Your task to perform on an android device: Search for Italian restaurants on Maps Image 0: 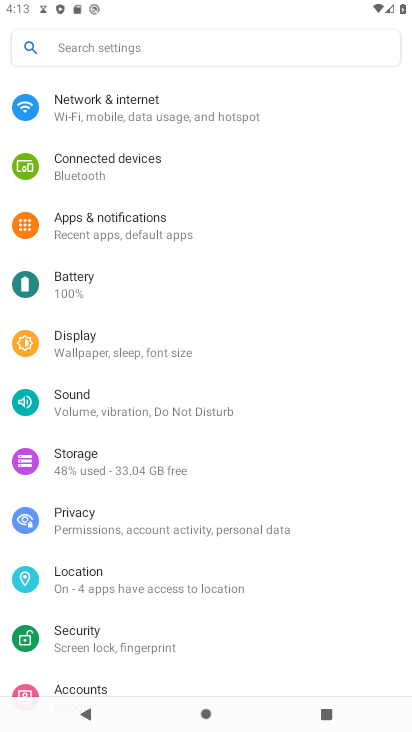
Step 0: drag from (204, 623) to (226, 460)
Your task to perform on an android device: Search for Italian restaurants on Maps Image 1: 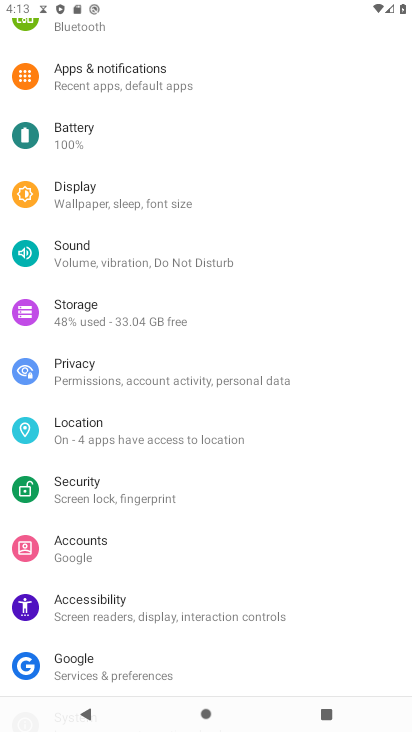
Step 1: press home button
Your task to perform on an android device: Search for Italian restaurants on Maps Image 2: 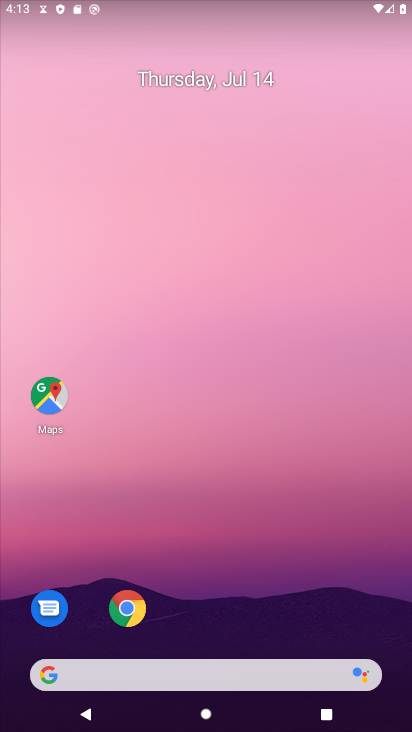
Step 2: drag from (143, 645) to (262, 77)
Your task to perform on an android device: Search for Italian restaurants on Maps Image 3: 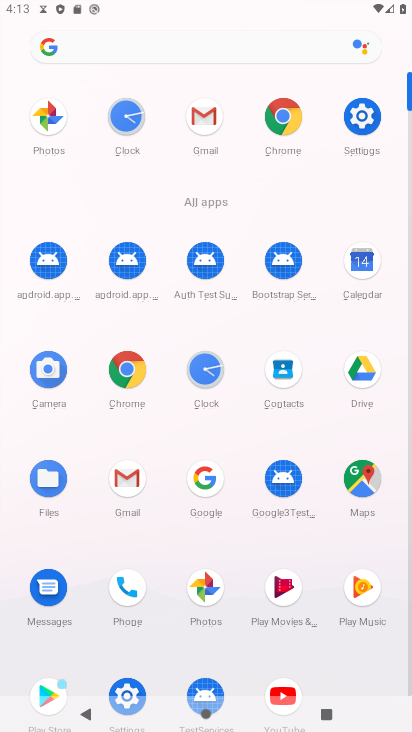
Step 3: click (346, 488)
Your task to perform on an android device: Search for Italian restaurants on Maps Image 4: 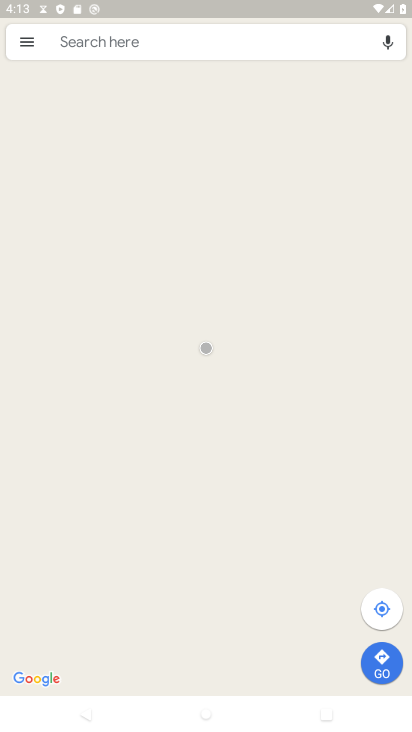
Step 4: click (92, 34)
Your task to perform on an android device: Search for Italian restaurants on Maps Image 5: 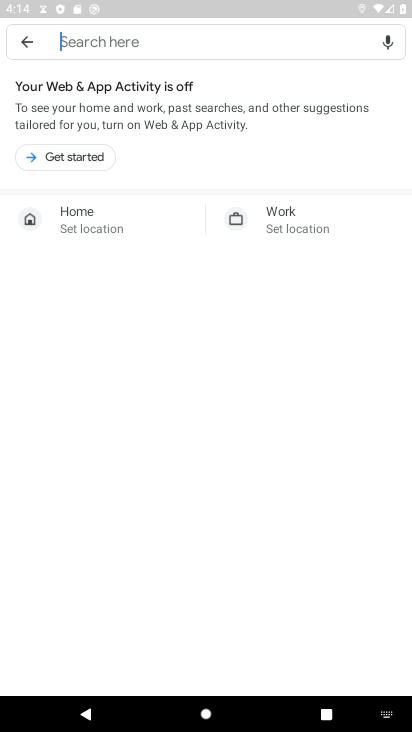
Step 5: type "Italian restaurants"
Your task to perform on an android device: Search for Italian restaurants on Maps Image 6: 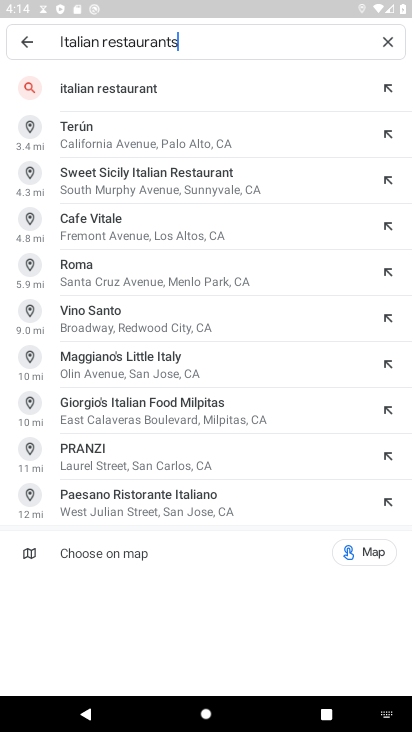
Step 6: click (201, 87)
Your task to perform on an android device: Search for Italian restaurants on Maps Image 7: 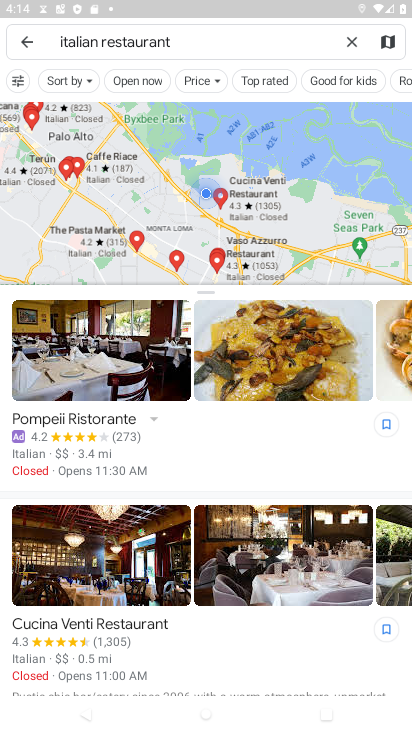
Step 7: task complete